Your task to perform on an android device: show emergency info Image 0: 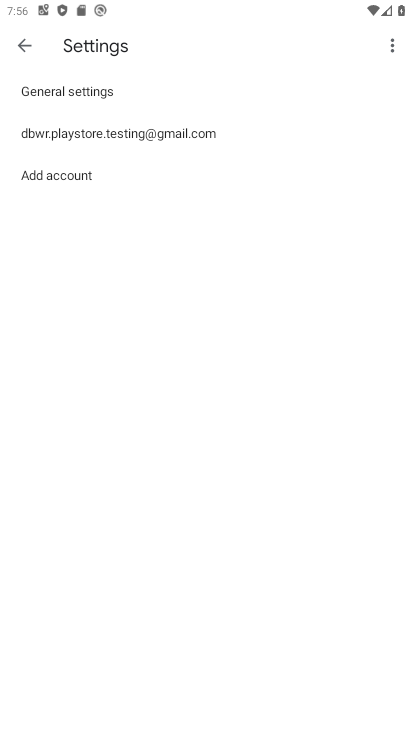
Step 0: press home button
Your task to perform on an android device: show emergency info Image 1: 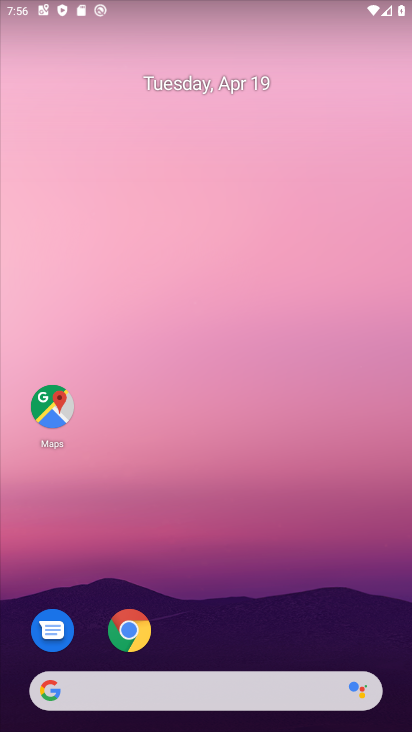
Step 1: drag from (201, 270) to (229, 13)
Your task to perform on an android device: show emergency info Image 2: 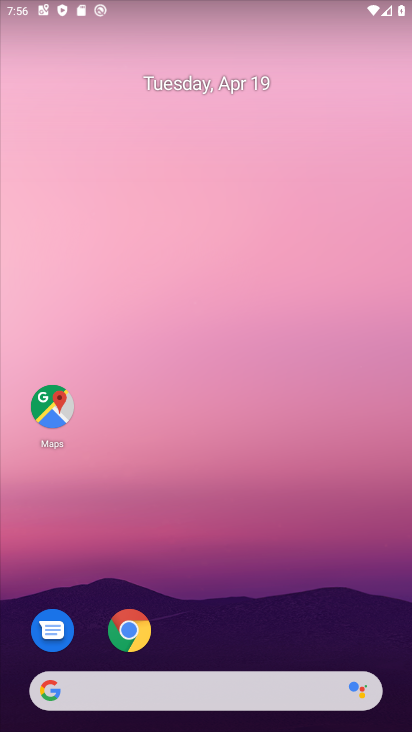
Step 2: drag from (199, 501) to (248, 62)
Your task to perform on an android device: show emergency info Image 3: 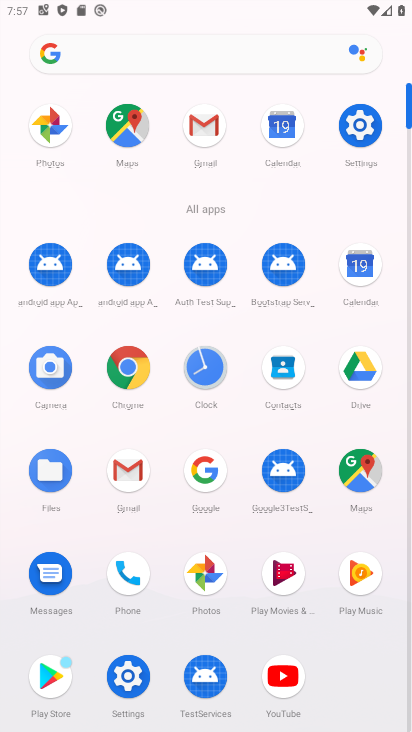
Step 3: click (360, 133)
Your task to perform on an android device: show emergency info Image 4: 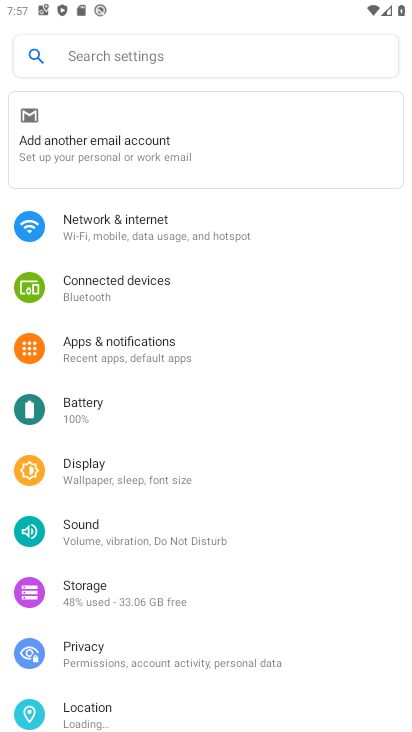
Step 4: drag from (170, 691) to (211, 73)
Your task to perform on an android device: show emergency info Image 5: 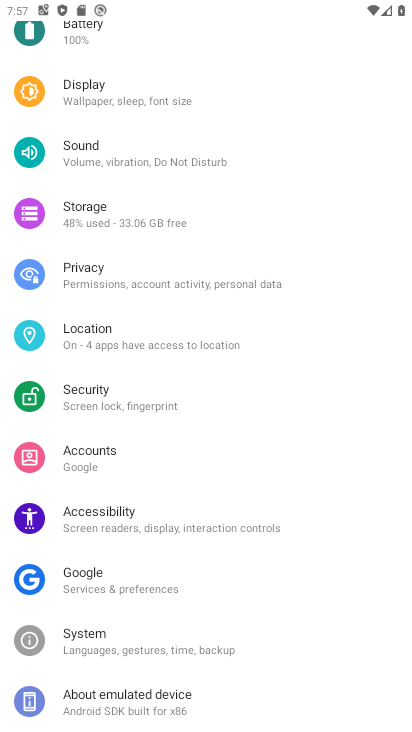
Step 5: click (206, 699)
Your task to perform on an android device: show emergency info Image 6: 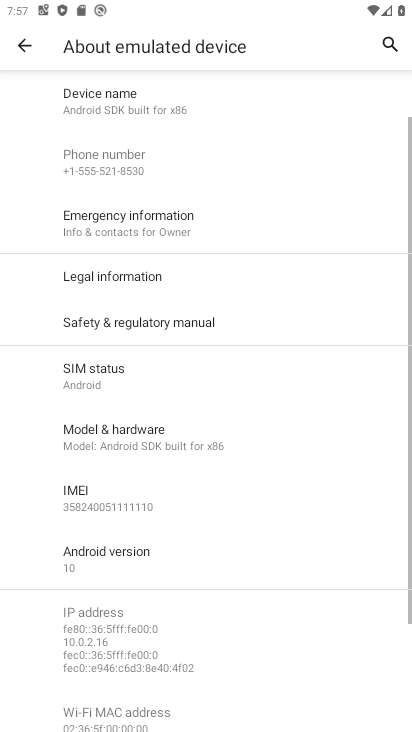
Step 6: click (183, 235)
Your task to perform on an android device: show emergency info Image 7: 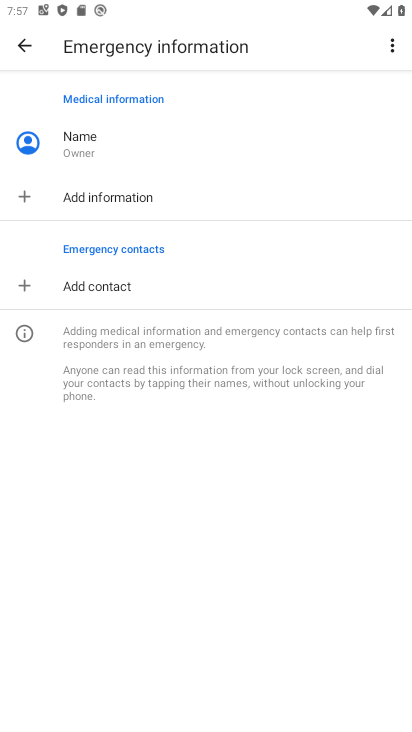
Step 7: task complete